Your task to perform on an android device: Search for the best rated headphones on Amazon. Image 0: 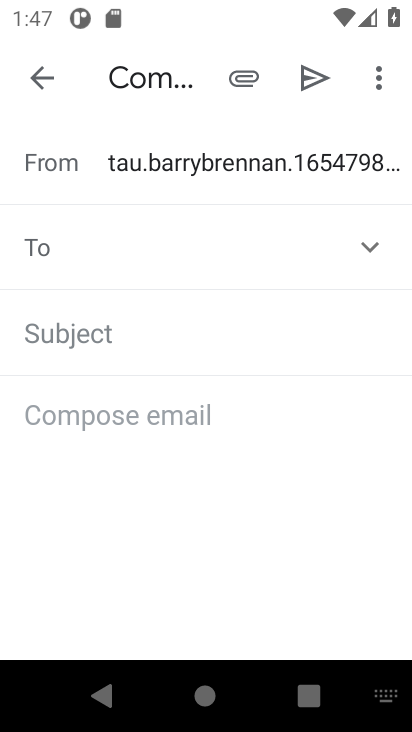
Step 0: press back button
Your task to perform on an android device: Search for the best rated headphones on Amazon. Image 1: 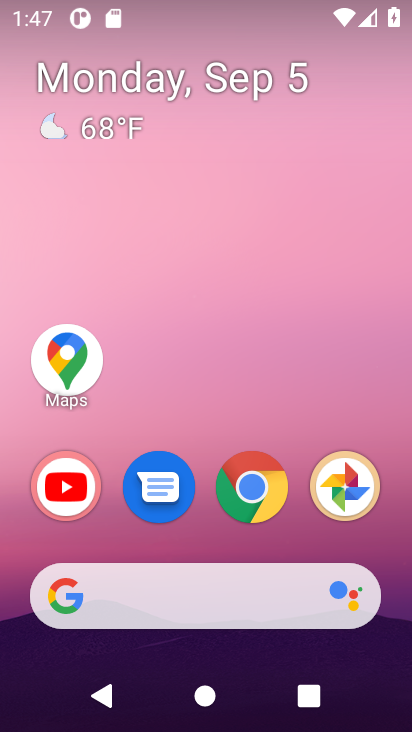
Step 1: click (267, 488)
Your task to perform on an android device: Search for the best rated headphones on Amazon. Image 2: 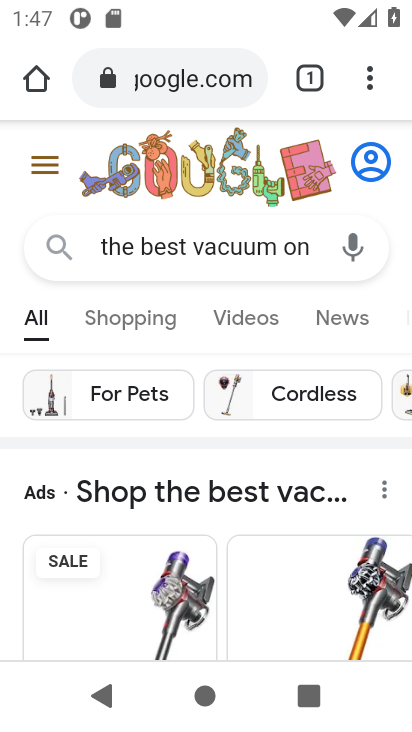
Step 2: click (172, 90)
Your task to perform on an android device: Search for the best rated headphones on Amazon. Image 3: 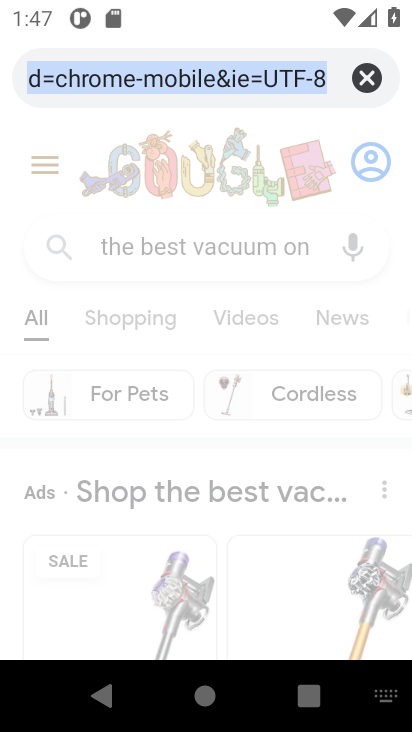
Step 3: click (363, 67)
Your task to perform on an android device: Search for the best rated headphones on Amazon. Image 4: 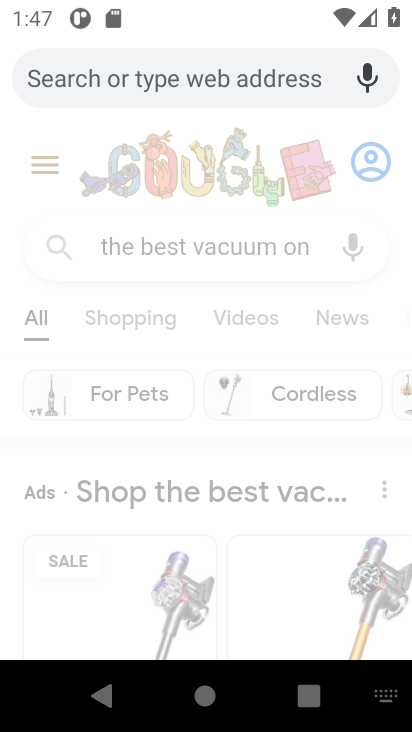
Step 4: type "the best rated headphones on Amazon."
Your task to perform on an android device: Search for the best rated headphones on Amazon. Image 5: 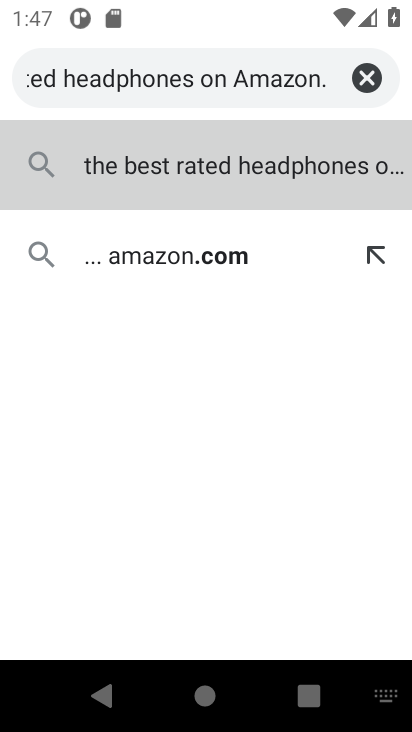
Step 5: click (180, 173)
Your task to perform on an android device: Search for the best rated headphones on Amazon. Image 6: 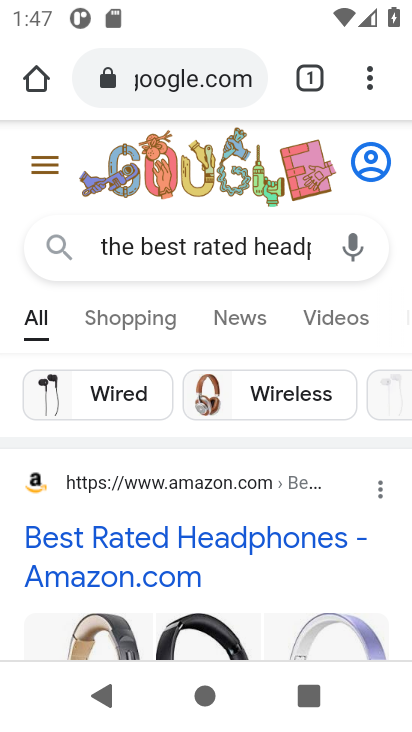
Step 6: task complete